Your task to perform on an android device: Is it going to rain this weekend? Image 0: 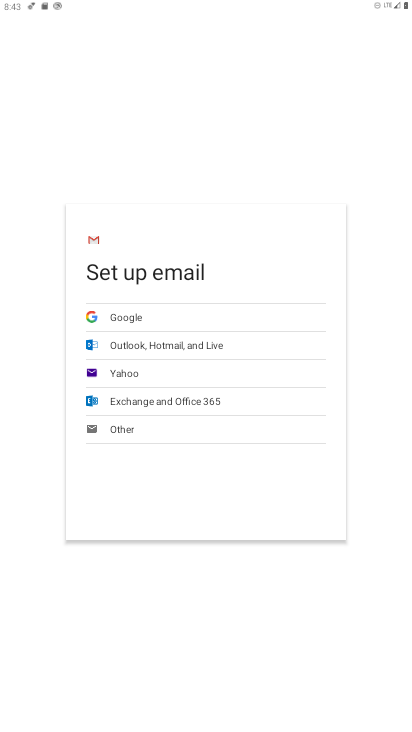
Step 0: press home button
Your task to perform on an android device: Is it going to rain this weekend? Image 1: 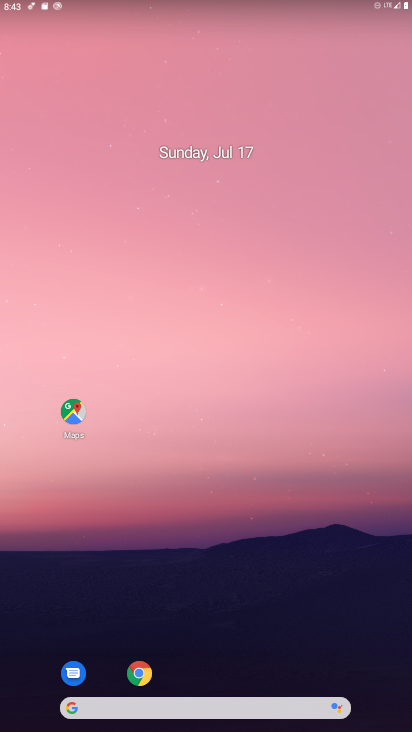
Step 1: drag from (4, 322) to (410, 312)
Your task to perform on an android device: Is it going to rain this weekend? Image 2: 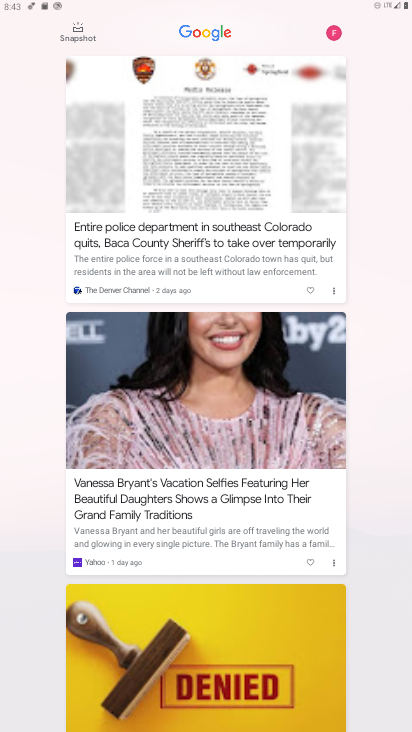
Step 2: press home button
Your task to perform on an android device: Is it going to rain this weekend? Image 3: 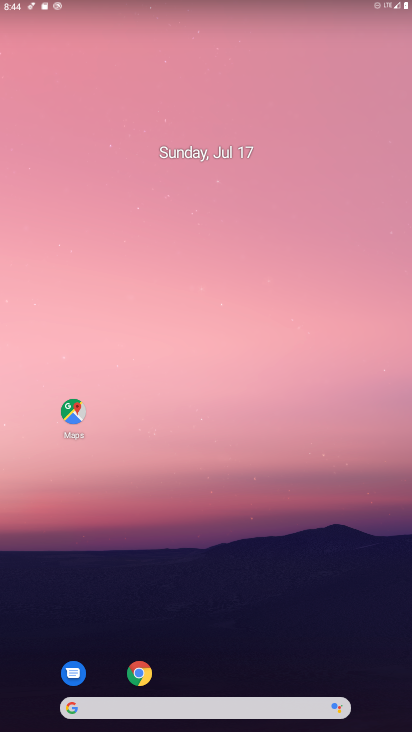
Step 3: click (139, 672)
Your task to perform on an android device: Is it going to rain this weekend? Image 4: 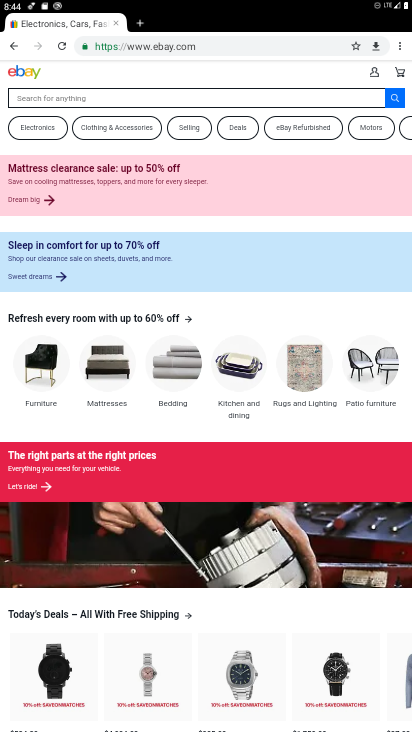
Step 4: click (174, 52)
Your task to perform on an android device: Is it going to rain this weekend? Image 5: 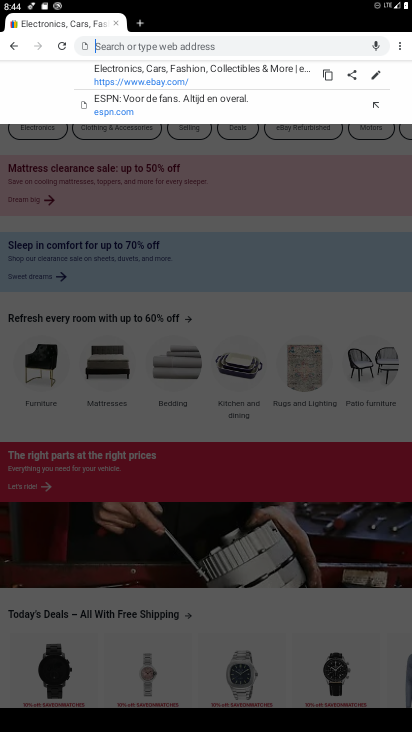
Step 5: type "weather this weekend"
Your task to perform on an android device: Is it going to rain this weekend? Image 6: 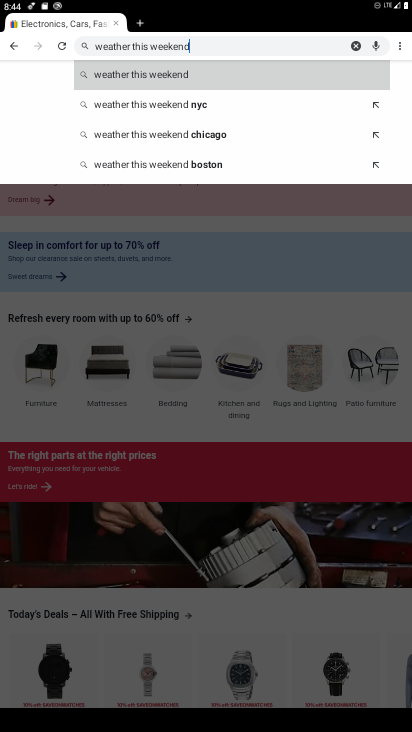
Step 6: click (111, 82)
Your task to perform on an android device: Is it going to rain this weekend? Image 7: 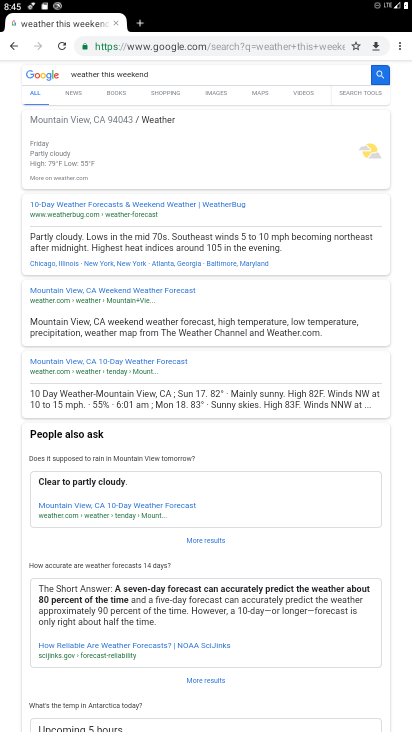
Step 7: task complete